Your task to perform on an android device: Go to Amazon Image 0: 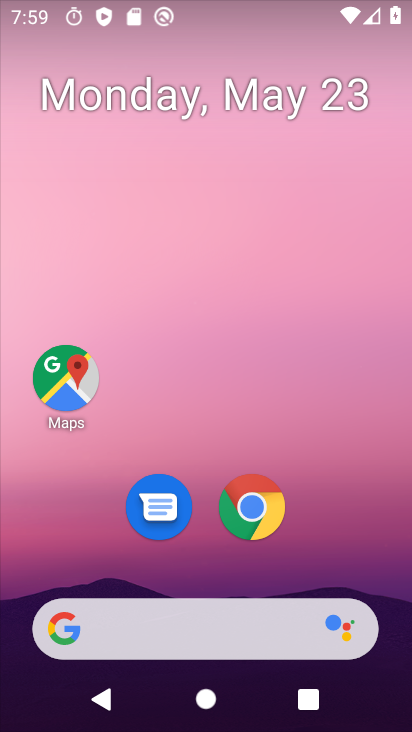
Step 0: click (271, 507)
Your task to perform on an android device: Go to Amazon Image 1: 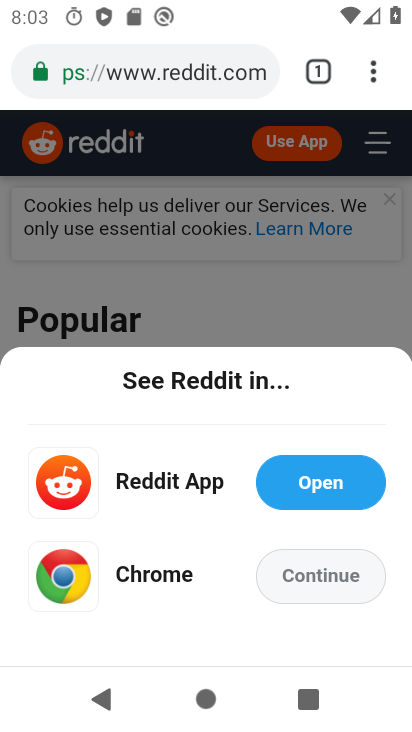
Step 1: click (106, 79)
Your task to perform on an android device: Go to Amazon Image 2: 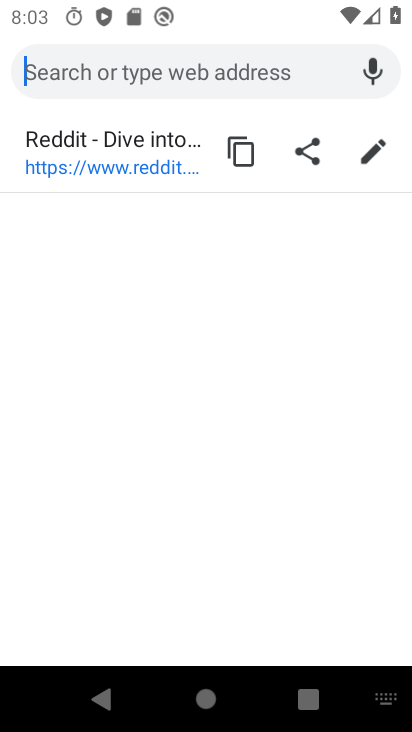
Step 2: type "amazon"
Your task to perform on an android device: Go to Amazon Image 3: 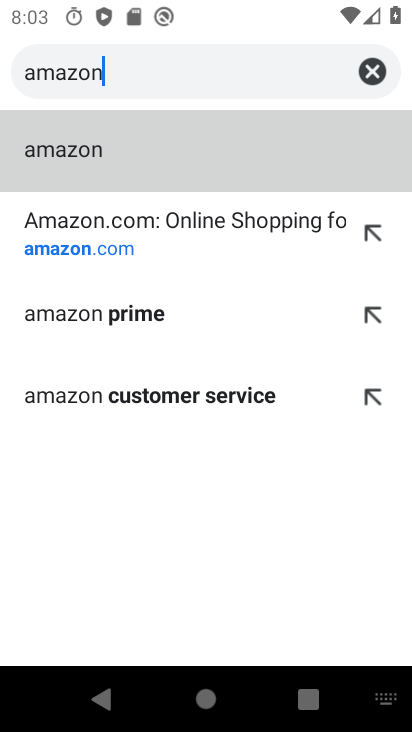
Step 3: click (114, 243)
Your task to perform on an android device: Go to Amazon Image 4: 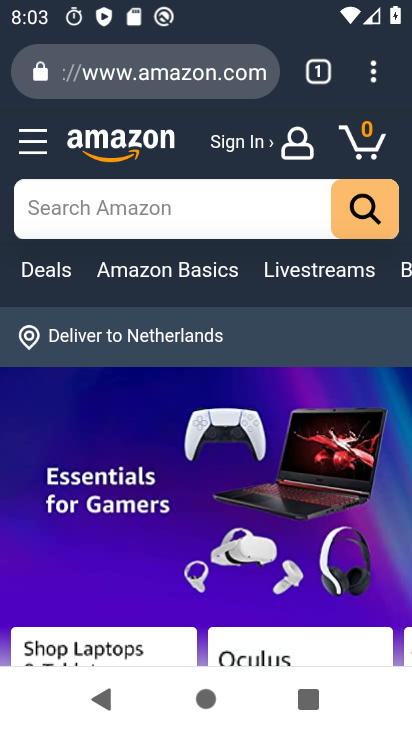
Step 4: task complete